Your task to perform on an android device: toggle sleep mode Image 0: 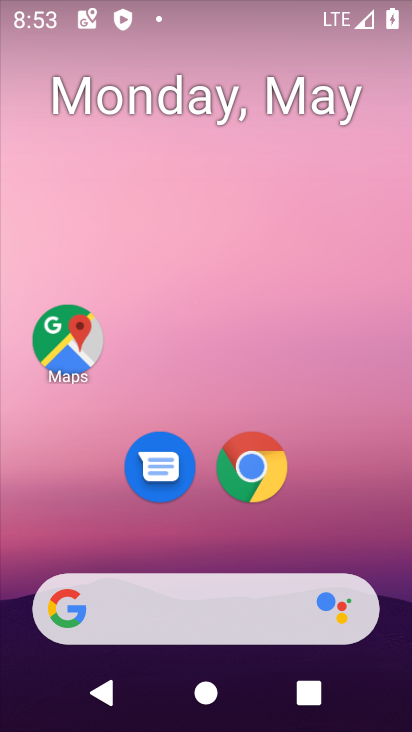
Step 0: drag from (313, 281) to (247, 2)
Your task to perform on an android device: toggle sleep mode Image 1: 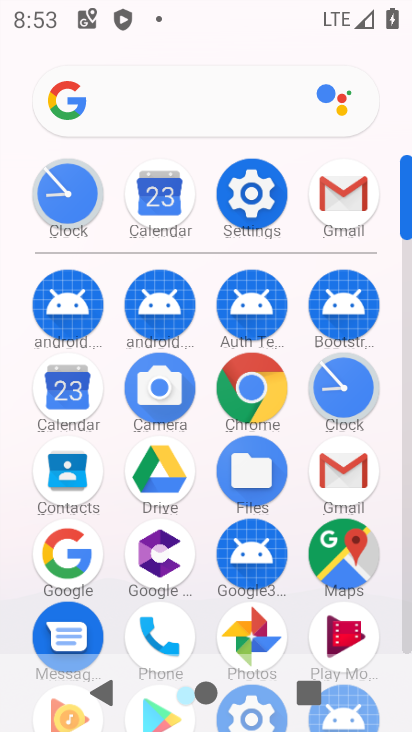
Step 1: click (270, 217)
Your task to perform on an android device: toggle sleep mode Image 2: 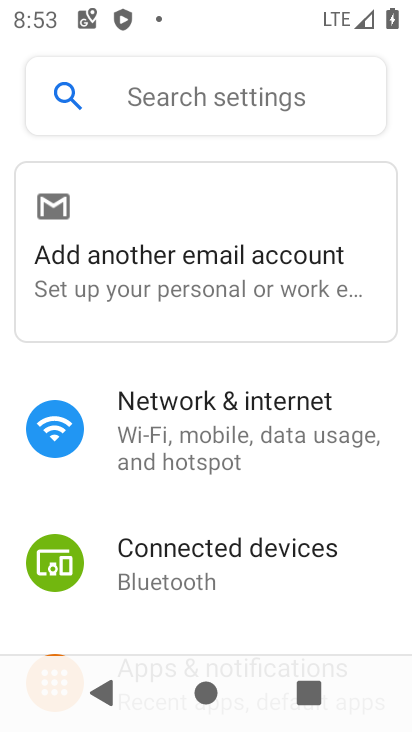
Step 2: drag from (278, 553) to (274, 182)
Your task to perform on an android device: toggle sleep mode Image 3: 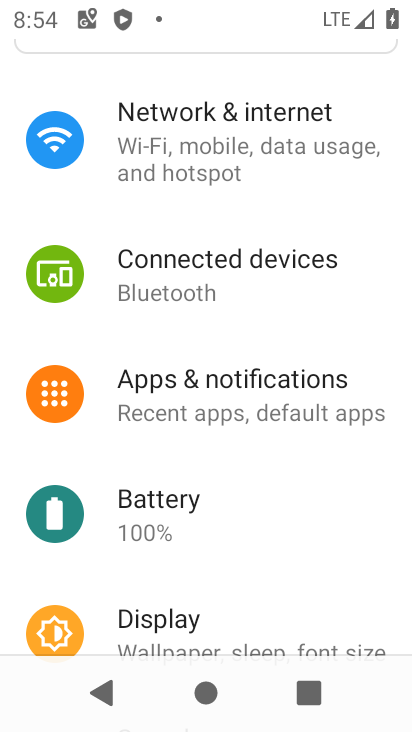
Step 3: click (219, 632)
Your task to perform on an android device: toggle sleep mode Image 4: 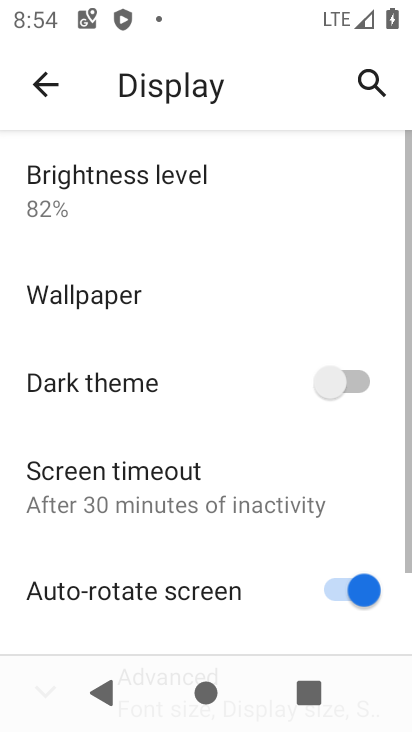
Step 4: task complete